Your task to perform on an android device: Search for the best custom wallets on Etsy. Image 0: 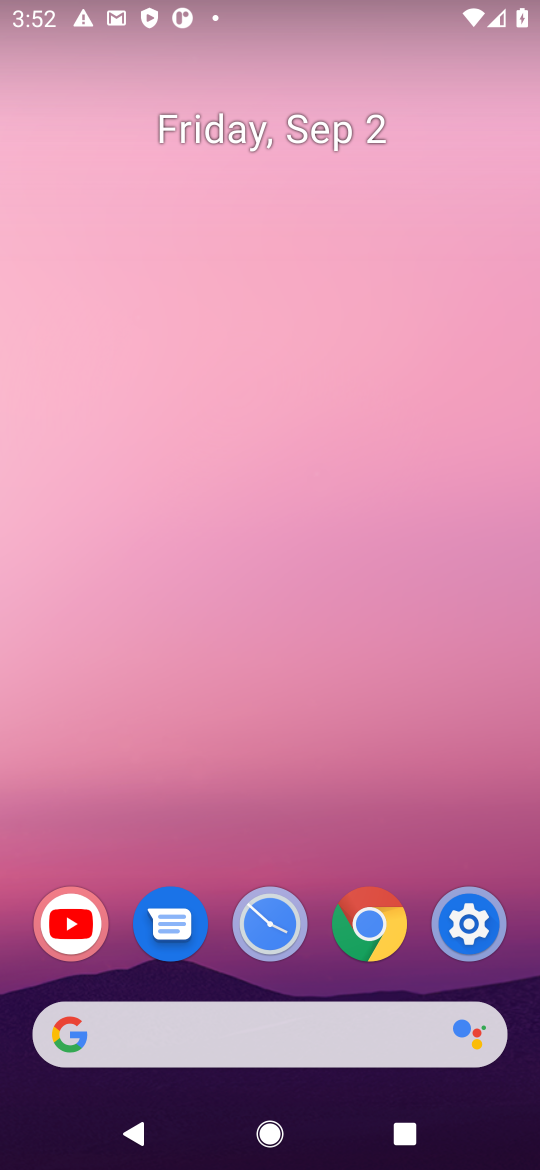
Step 0: press home button
Your task to perform on an android device: Search for the best custom wallets on Etsy. Image 1: 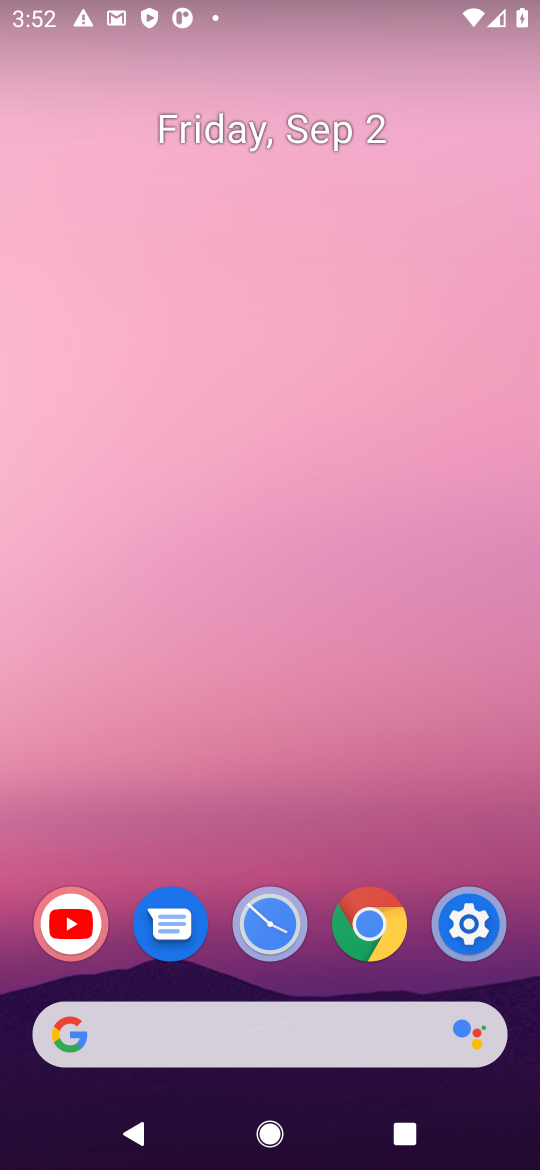
Step 1: click (354, 1043)
Your task to perform on an android device: Search for the best custom wallets on Etsy. Image 2: 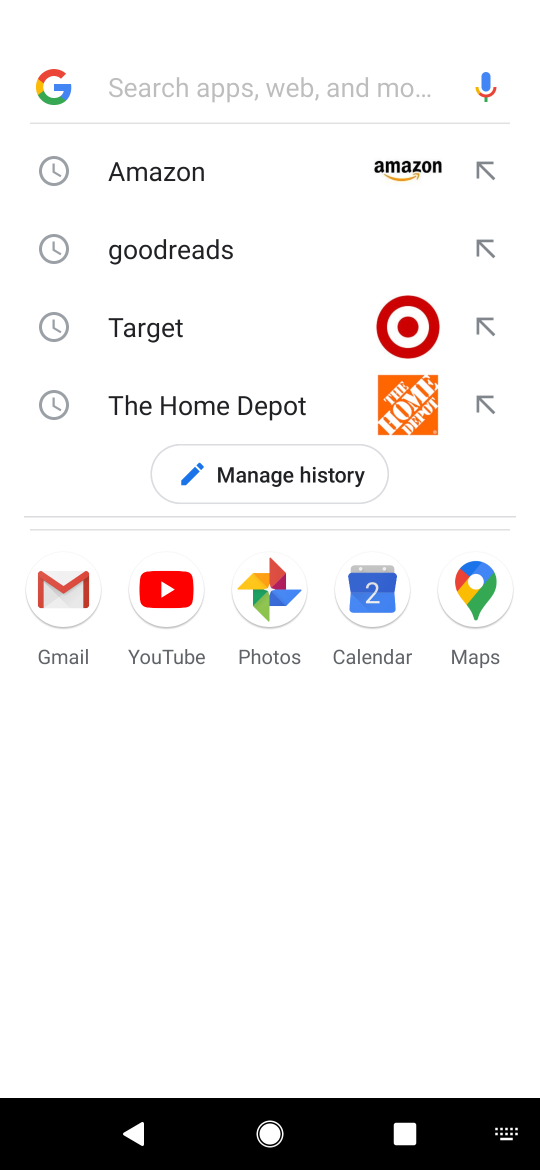
Step 2: type "etsy"
Your task to perform on an android device: Search for the best custom wallets on Etsy. Image 3: 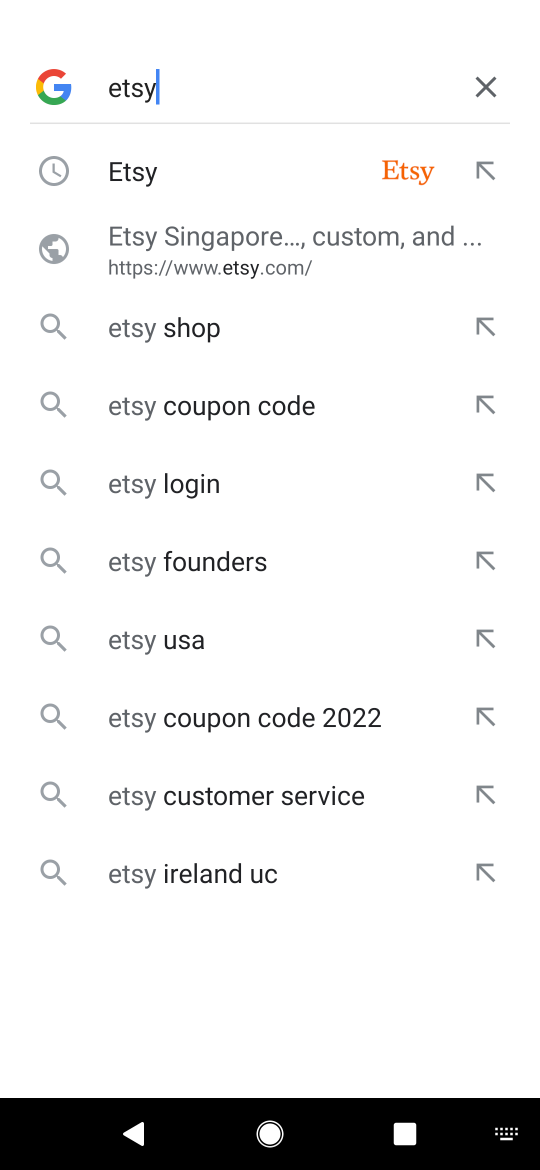
Step 3: click (197, 172)
Your task to perform on an android device: Search for the best custom wallets on Etsy. Image 4: 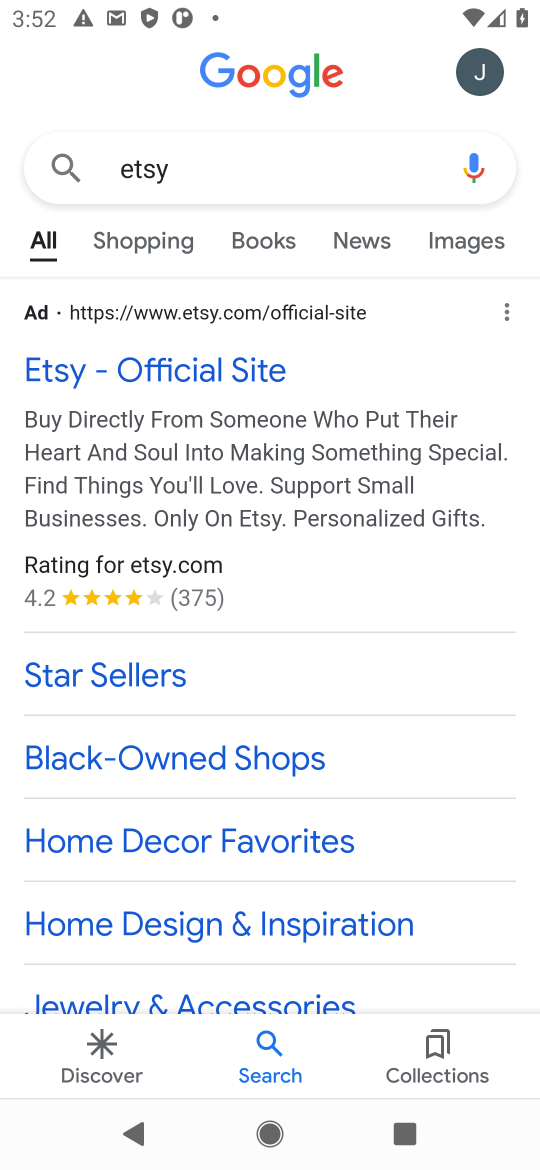
Step 4: click (236, 372)
Your task to perform on an android device: Search for the best custom wallets on Etsy. Image 5: 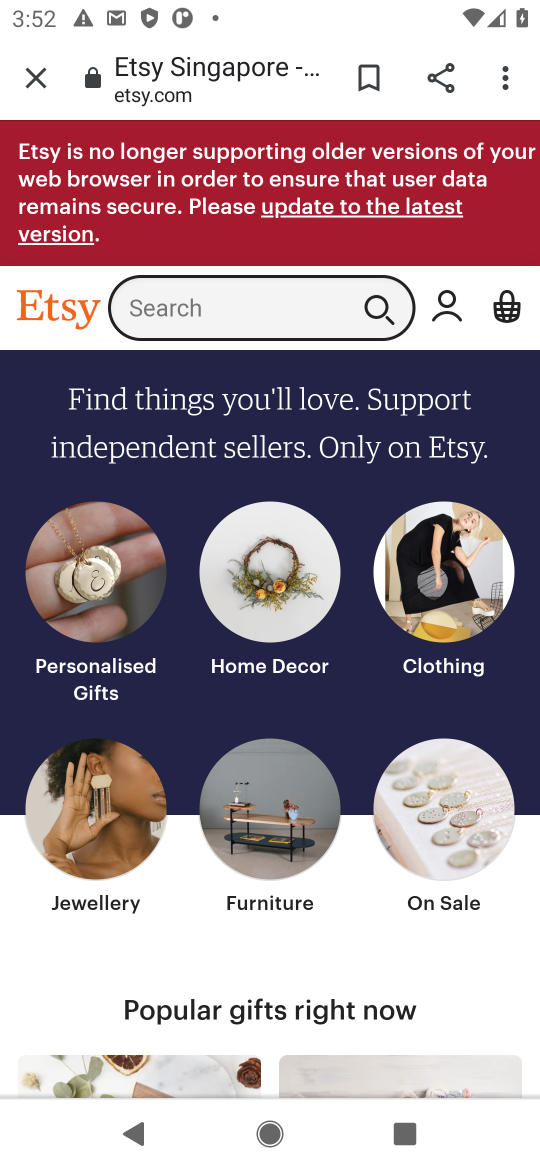
Step 5: click (228, 296)
Your task to perform on an android device: Search for the best custom wallets on Etsy. Image 6: 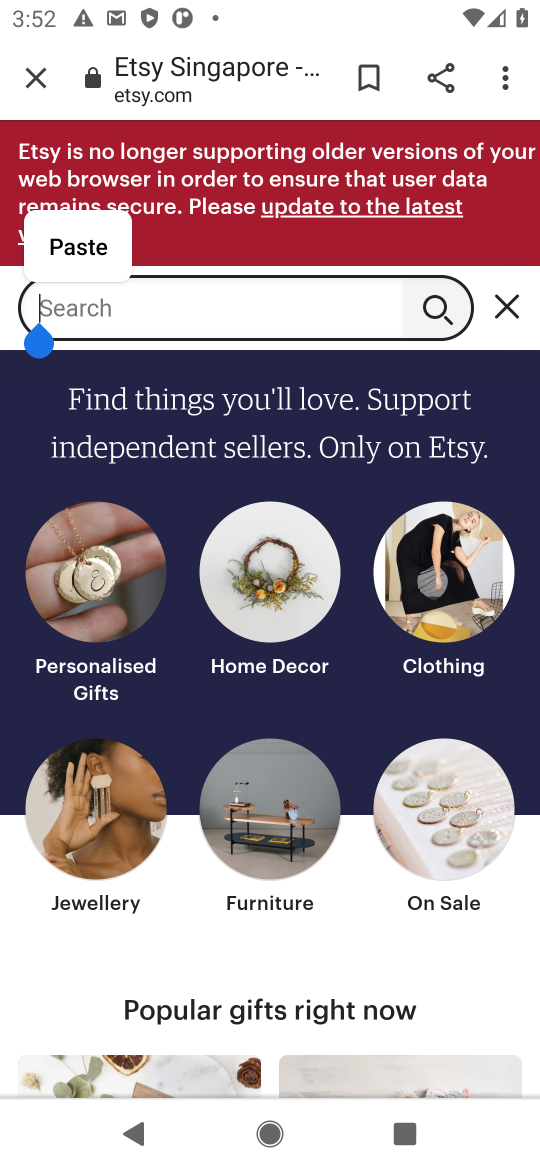
Step 6: type "custom wallets"
Your task to perform on an android device: Search for the best custom wallets on Etsy. Image 7: 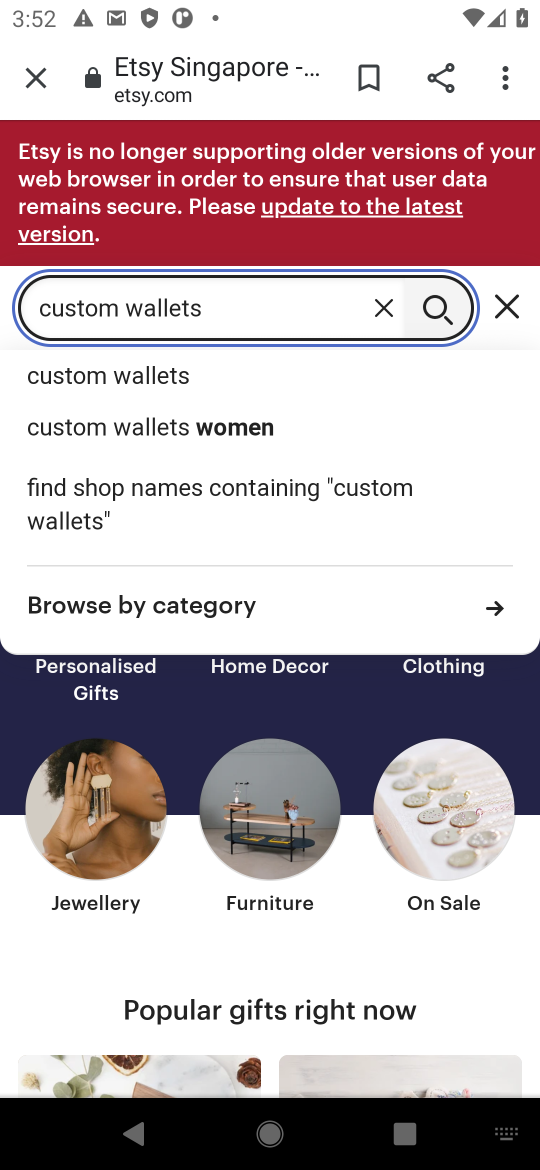
Step 7: click (152, 361)
Your task to perform on an android device: Search for the best custom wallets on Etsy. Image 8: 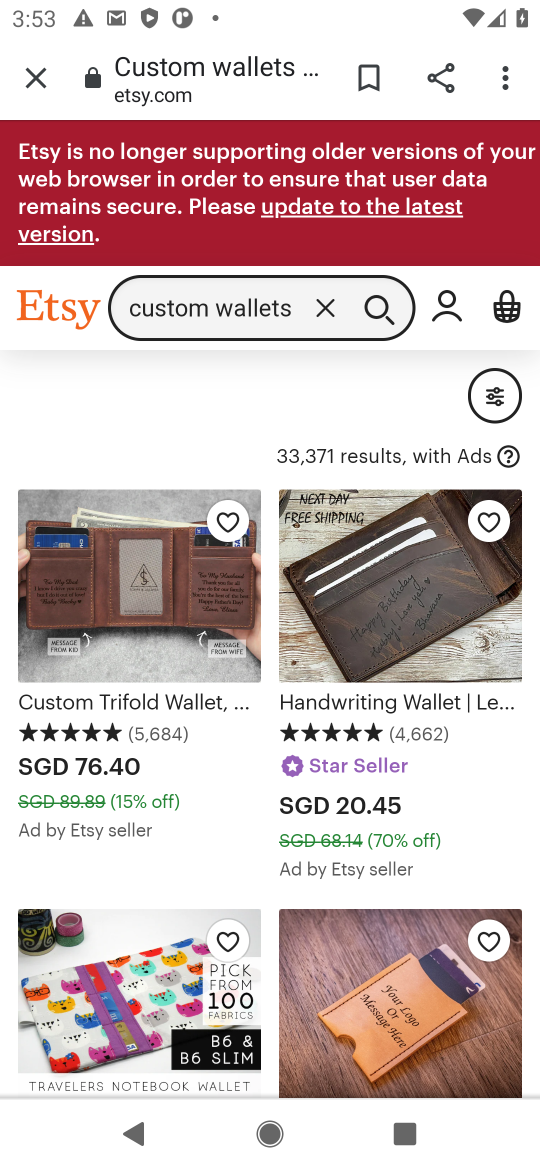
Step 8: task complete